Your task to perform on an android device: Open the map Image 0: 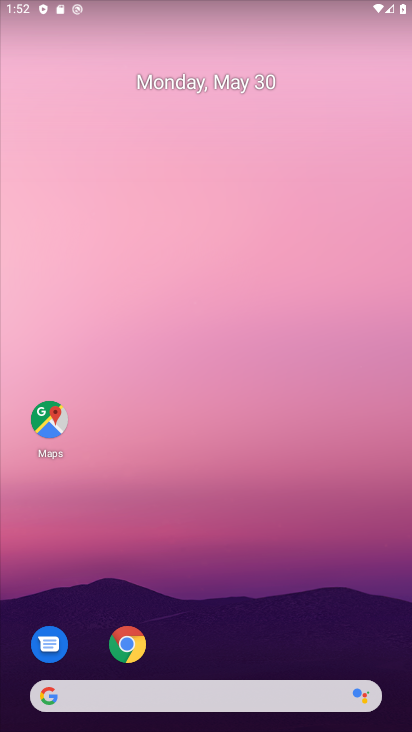
Step 0: click (45, 426)
Your task to perform on an android device: Open the map Image 1: 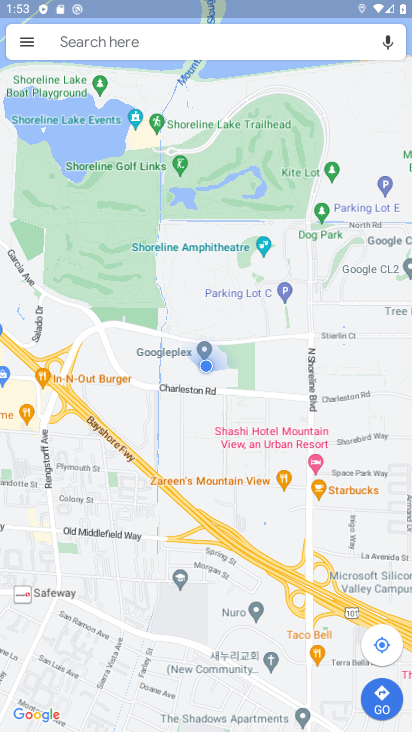
Step 1: task complete